Your task to perform on an android device: turn on airplane mode Image 0: 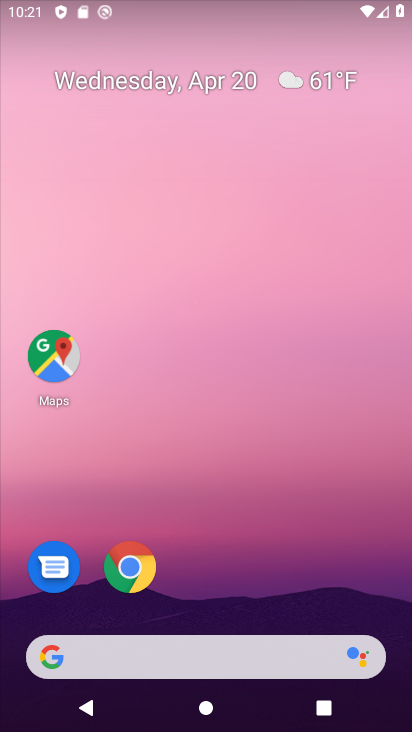
Step 0: drag from (364, 6) to (289, 558)
Your task to perform on an android device: turn on airplane mode Image 1: 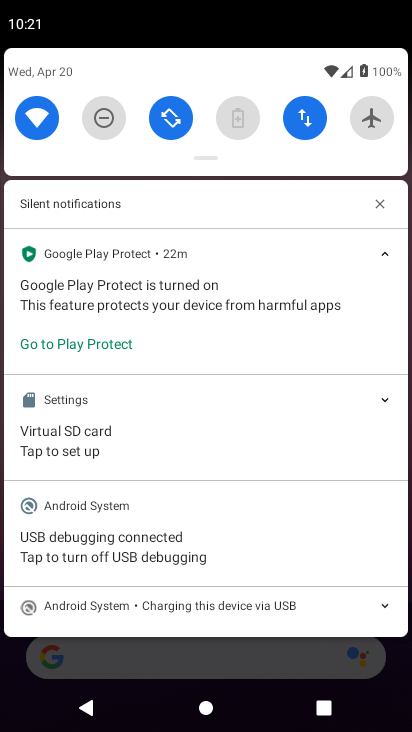
Step 1: drag from (199, 156) to (204, 607)
Your task to perform on an android device: turn on airplane mode Image 2: 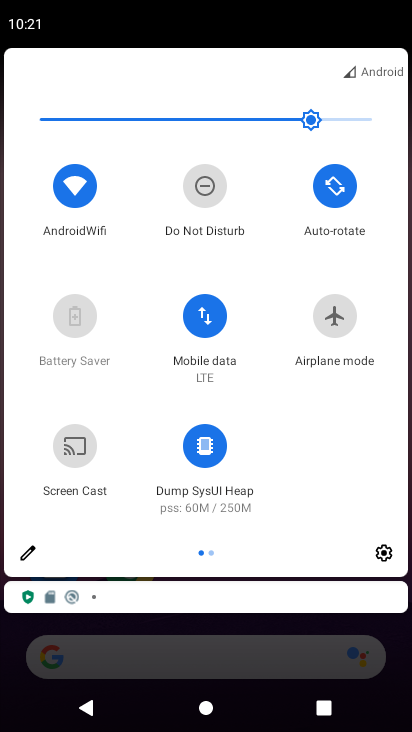
Step 2: click (335, 320)
Your task to perform on an android device: turn on airplane mode Image 3: 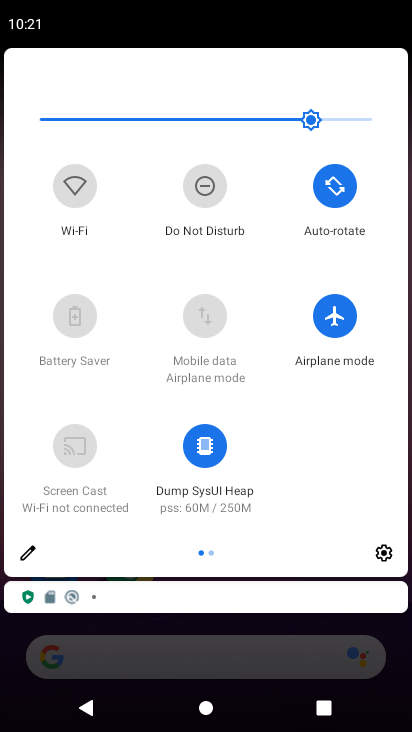
Step 3: task complete